Your task to perform on an android device: change your default location settings in chrome Image 0: 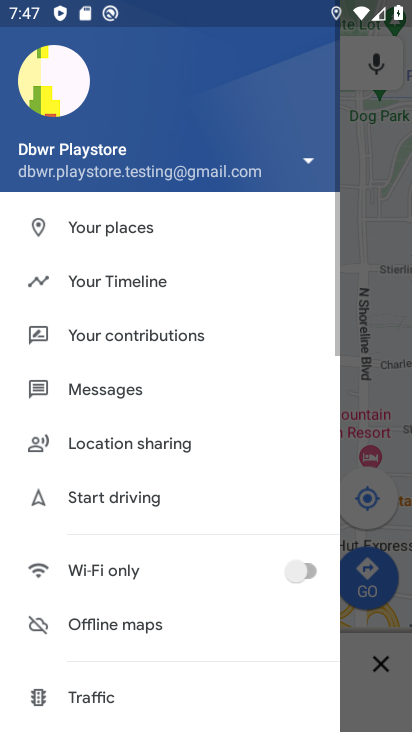
Step 0: press home button
Your task to perform on an android device: change your default location settings in chrome Image 1: 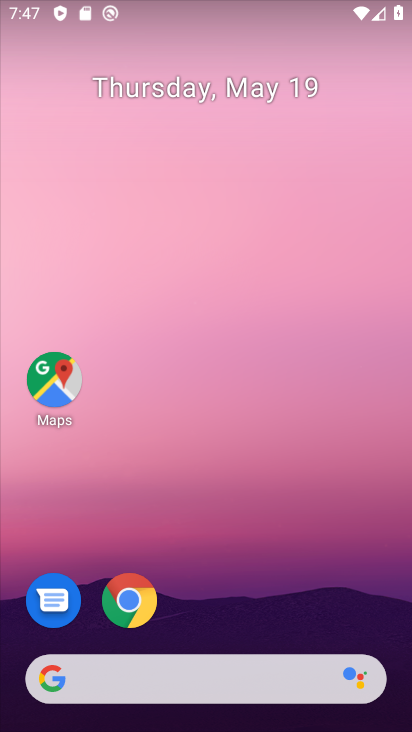
Step 1: drag from (277, 602) to (277, 164)
Your task to perform on an android device: change your default location settings in chrome Image 2: 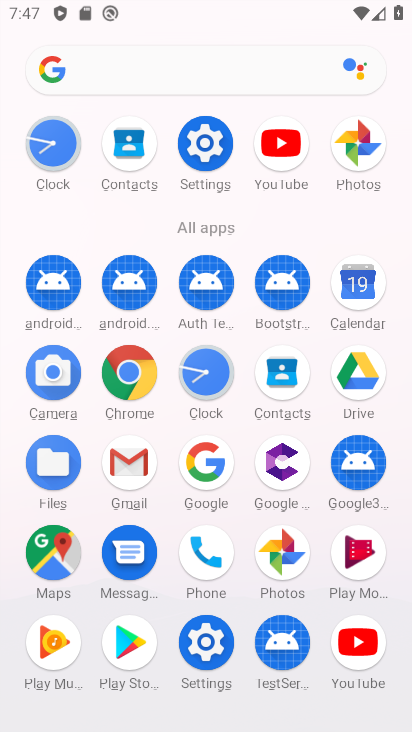
Step 2: click (221, 157)
Your task to perform on an android device: change your default location settings in chrome Image 3: 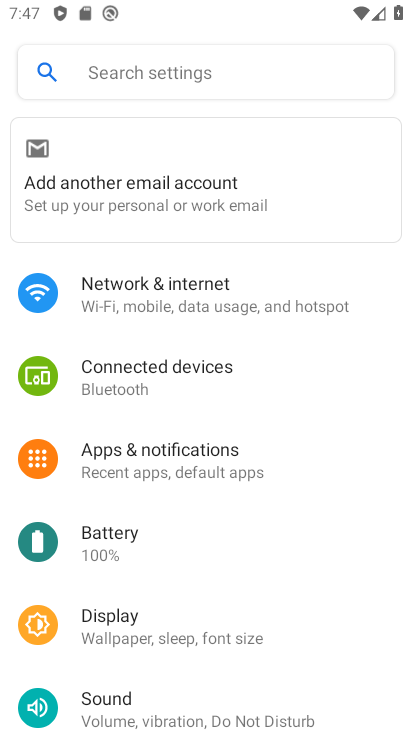
Step 3: drag from (174, 677) to (190, 222)
Your task to perform on an android device: change your default location settings in chrome Image 4: 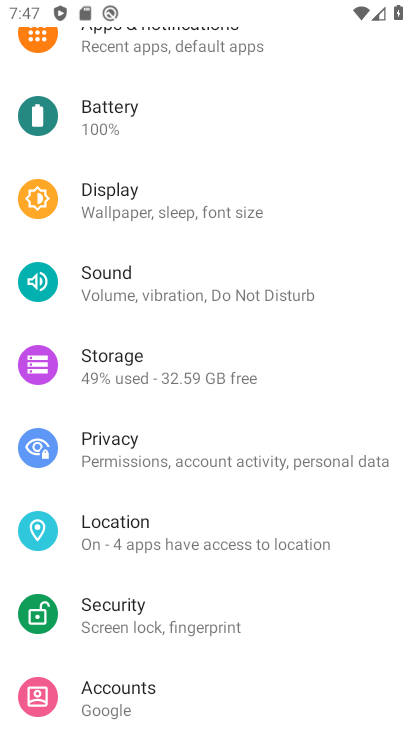
Step 4: click (182, 517)
Your task to perform on an android device: change your default location settings in chrome Image 5: 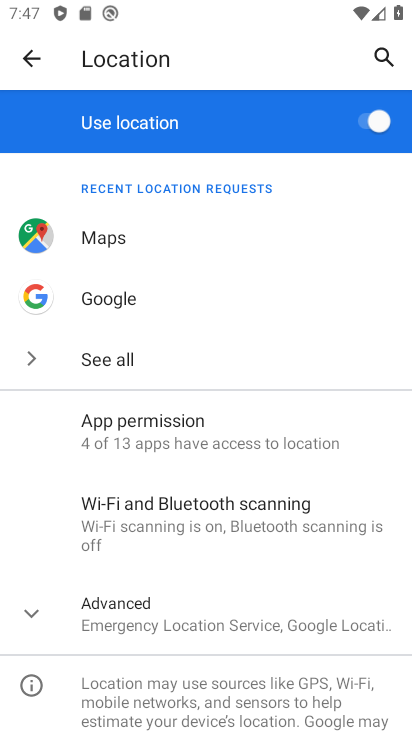
Step 5: press home button
Your task to perform on an android device: change your default location settings in chrome Image 6: 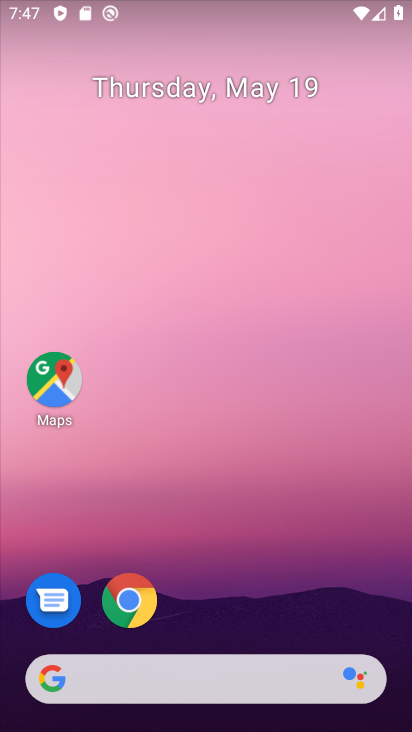
Step 6: click (139, 635)
Your task to perform on an android device: change your default location settings in chrome Image 7: 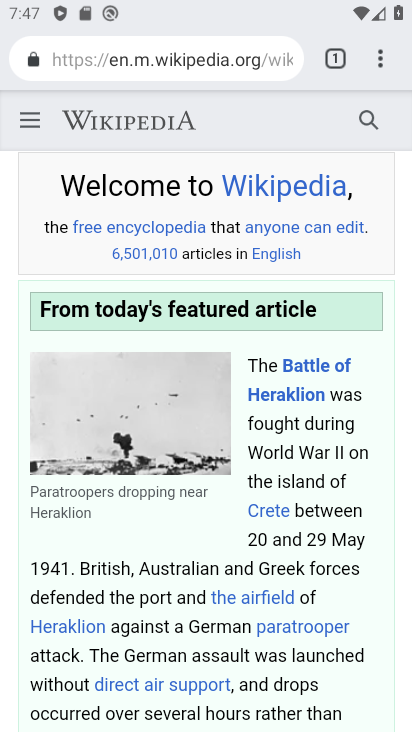
Step 7: click (385, 70)
Your task to perform on an android device: change your default location settings in chrome Image 8: 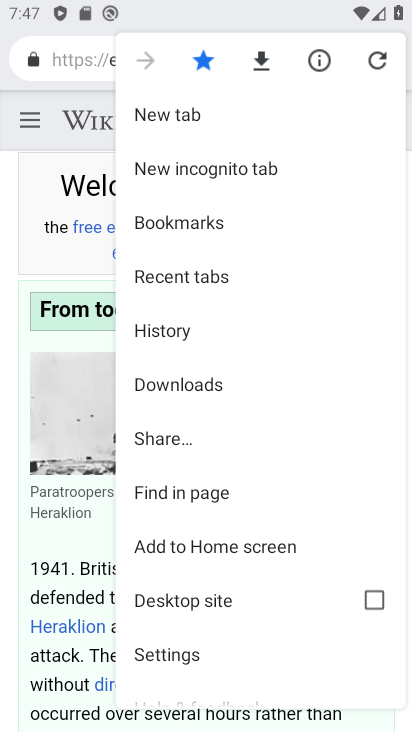
Step 8: click (215, 656)
Your task to perform on an android device: change your default location settings in chrome Image 9: 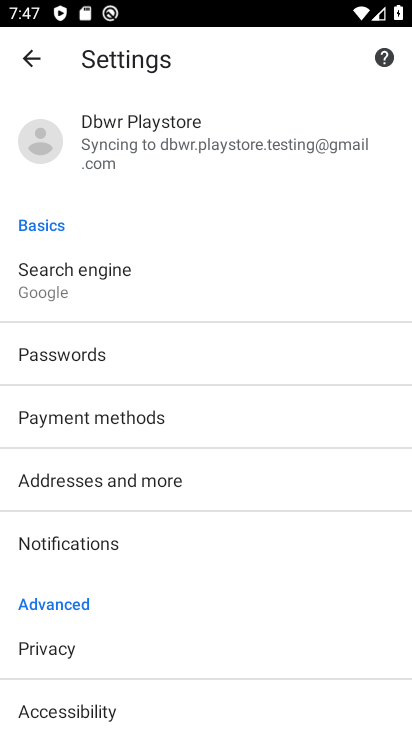
Step 9: click (200, 479)
Your task to perform on an android device: change your default location settings in chrome Image 10: 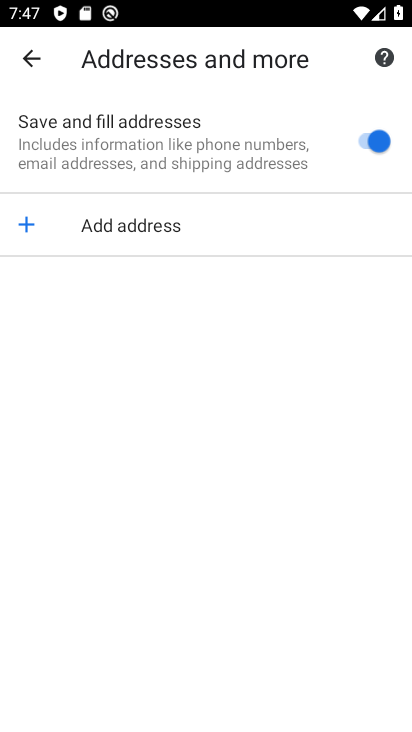
Step 10: task complete